Your task to perform on an android device: turn notification dots off Image 0: 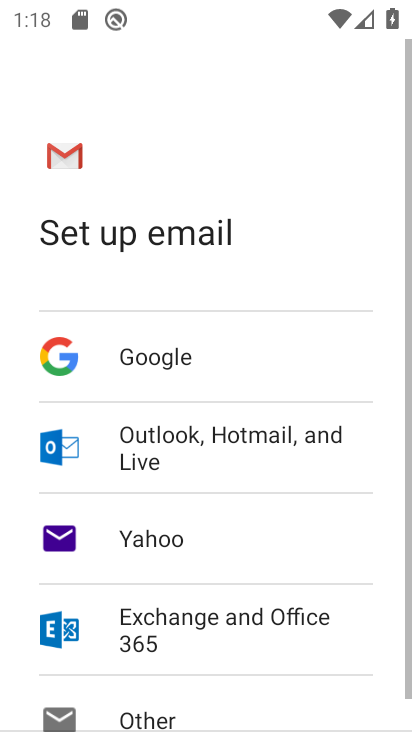
Step 0: press home button
Your task to perform on an android device: turn notification dots off Image 1: 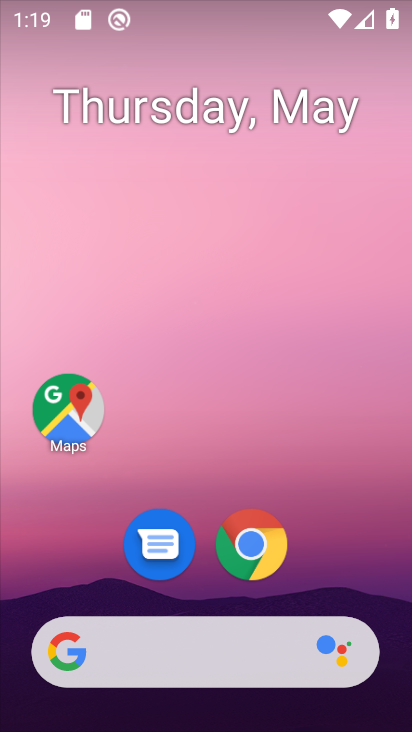
Step 1: drag from (295, 557) to (355, 185)
Your task to perform on an android device: turn notification dots off Image 2: 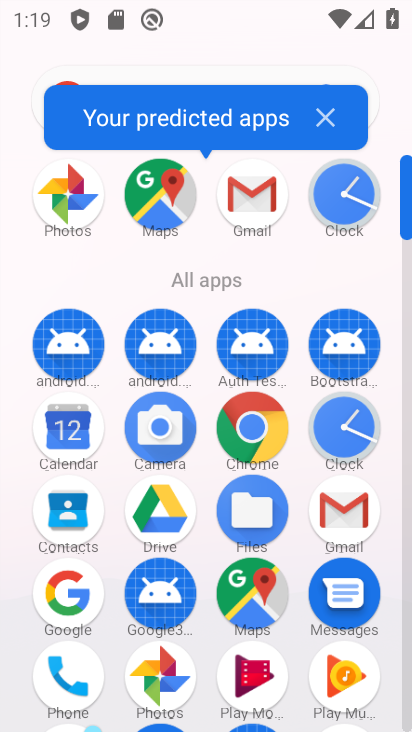
Step 2: drag from (301, 319) to (353, 176)
Your task to perform on an android device: turn notification dots off Image 3: 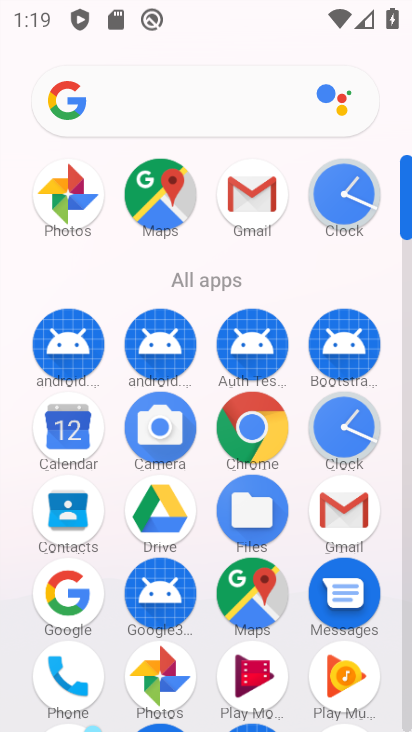
Step 3: drag from (233, 609) to (290, 370)
Your task to perform on an android device: turn notification dots off Image 4: 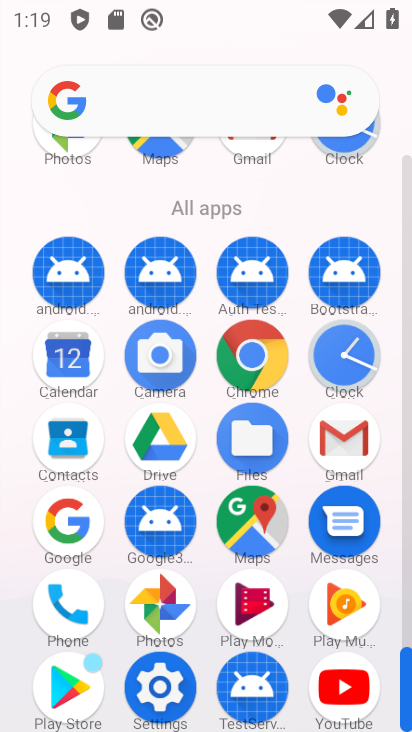
Step 4: click (167, 663)
Your task to perform on an android device: turn notification dots off Image 5: 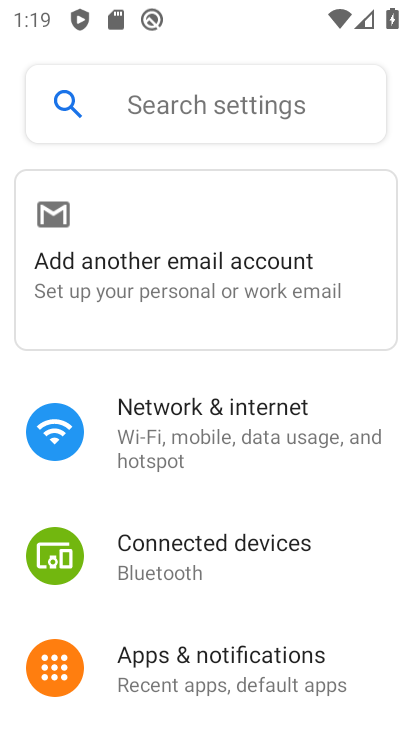
Step 5: click (233, 673)
Your task to perform on an android device: turn notification dots off Image 6: 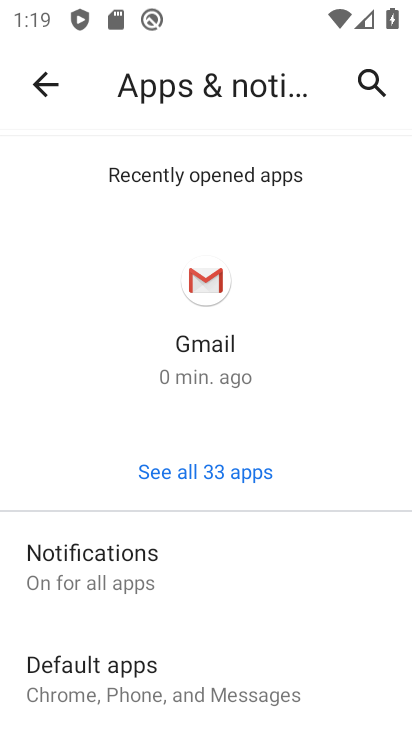
Step 6: drag from (207, 582) to (239, 570)
Your task to perform on an android device: turn notification dots off Image 7: 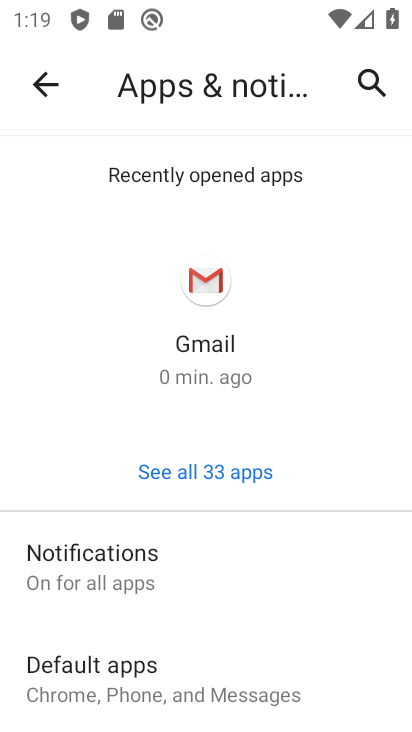
Step 7: click (238, 570)
Your task to perform on an android device: turn notification dots off Image 8: 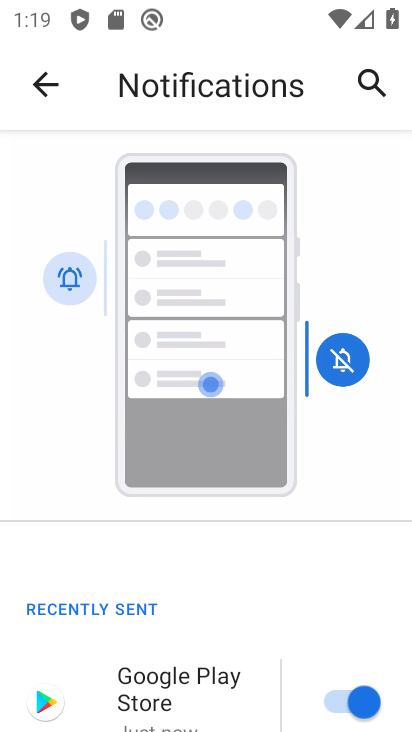
Step 8: drag from (226, 663) to (320, 100)
Your task to perform on an android device: turn notification dots off Image 9: 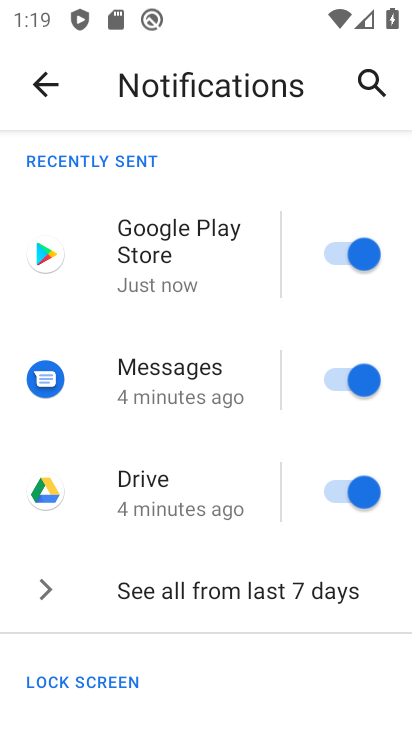
Step 9: drag from (208, 565) to (275, 210)
Your task to perform on an android device: turn notification dots off Image 10: 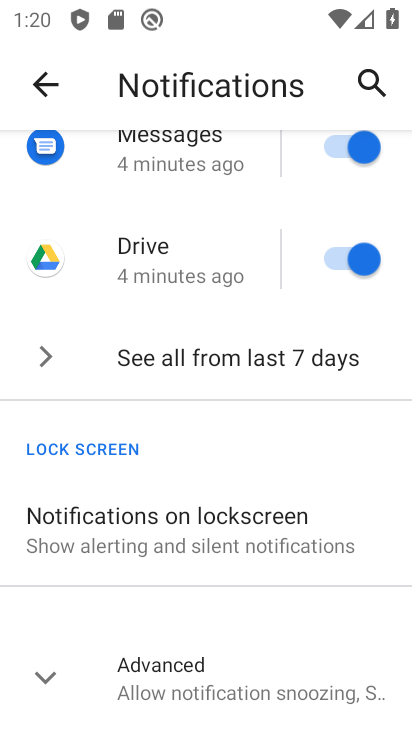
Step 10: drag from (177, 598) to (200, 413)
Your task to perform on an android device: turn notification dots off Image 11: 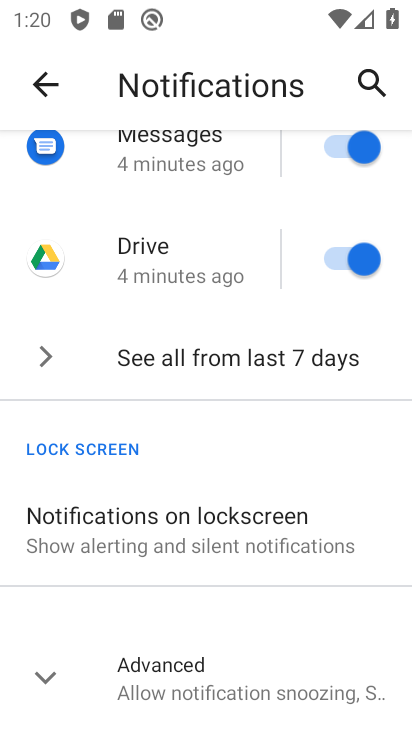
Step 11: drag from (182, 519) to (238, 322)
Your task to perform on an android device: turn notification dots off Image 12: 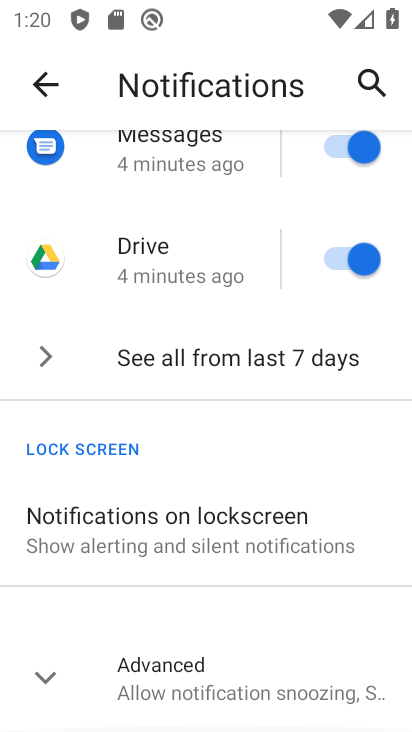
Step 12: click (47, 676)
Your task to perform on an android device: turn notification dots off Image 13: 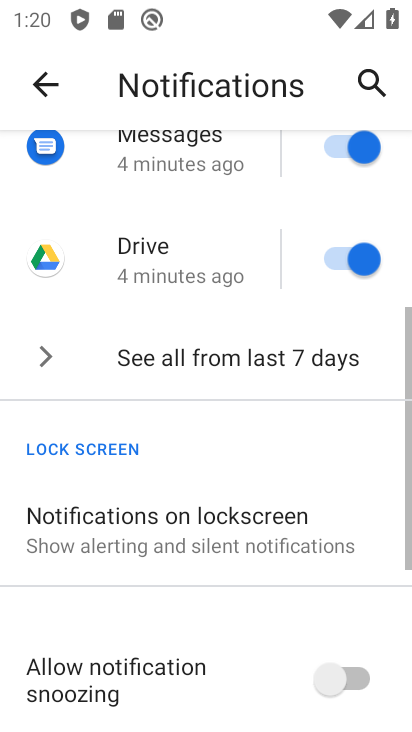
Step 13: drag from (145, 644) to (239, 274)
Your task to perform on an android device: turn notification dots off Image 14: 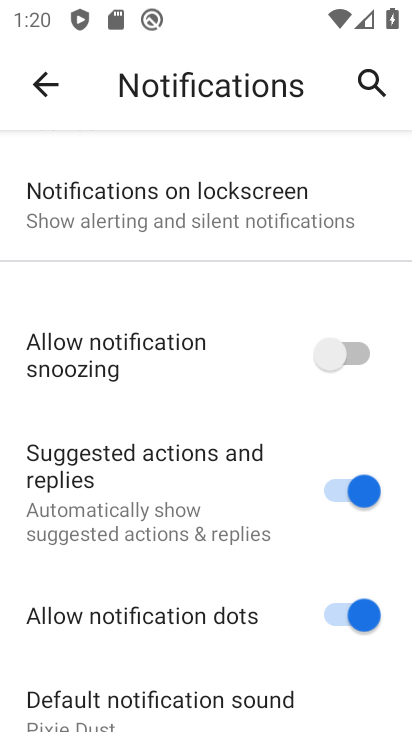
Step 14: click (362, 618)
Your task to perform on an android device: turn notification dots off Image 15: 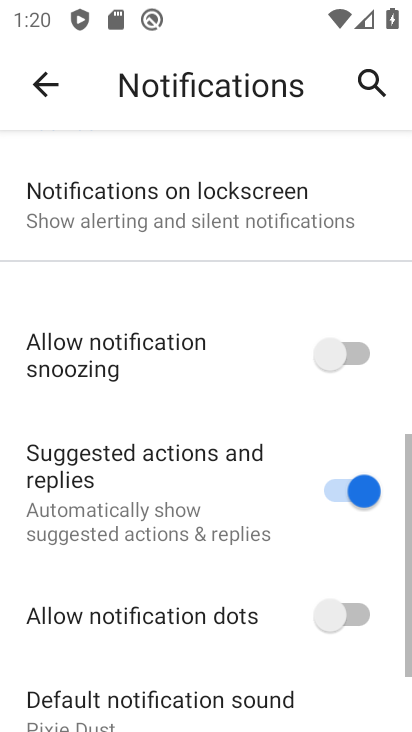
Step 15: task complete